Your task to perform on an android device: uninstall "TextNow: Call + Text Unlimited" Image 0: 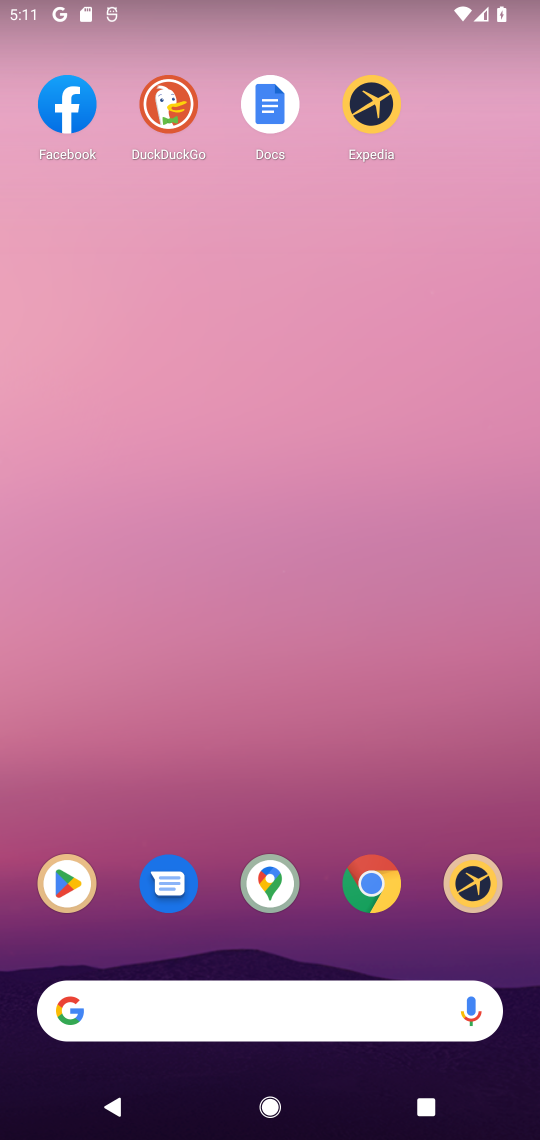
Step 0: drag from (257, 951) to (510, 83)
Your task to perform on an android device: uninstall "TextNow: Call + Text Unlimited" Image 1: 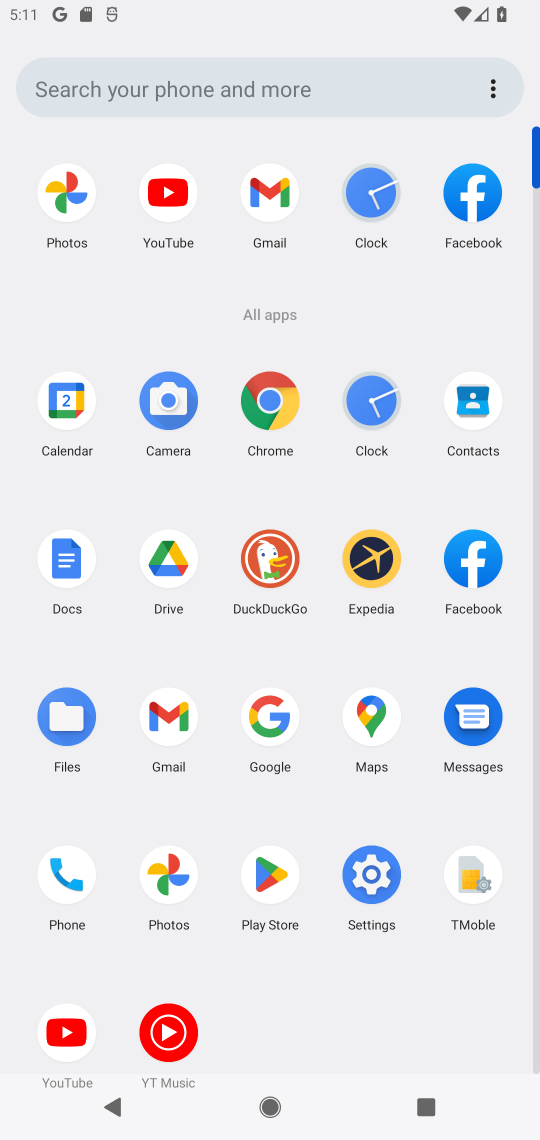
Step 1: click (286, 878)
Your task to perform on an android device: uninstall "TextNow: Call + Text Unlimited" Image 2: 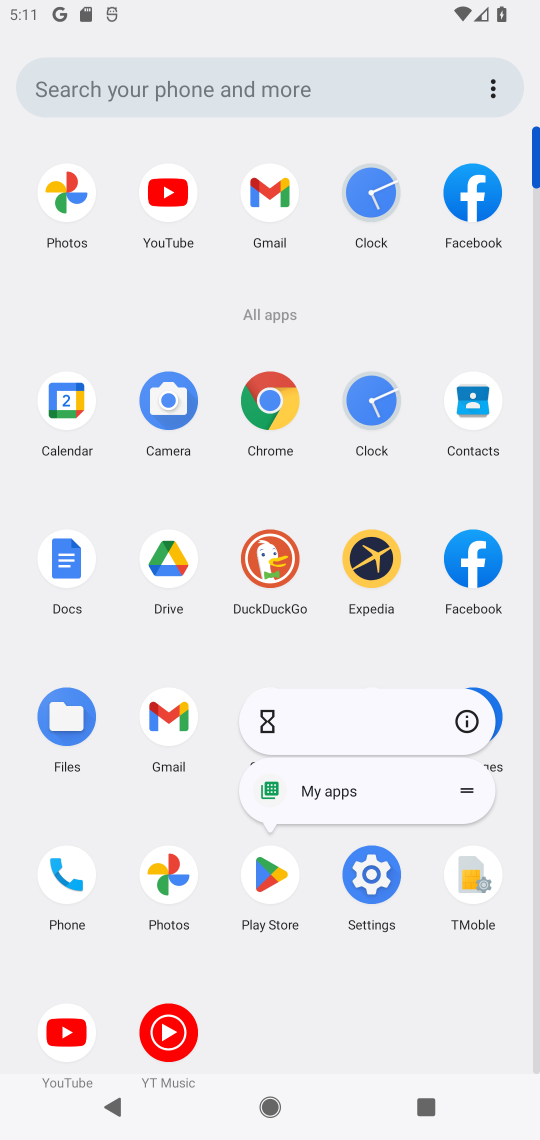
Step 2: click (263, 878)
Your task to perform on an android device: uninstall "TextNow: Call + Text Unlimited" Image 3: 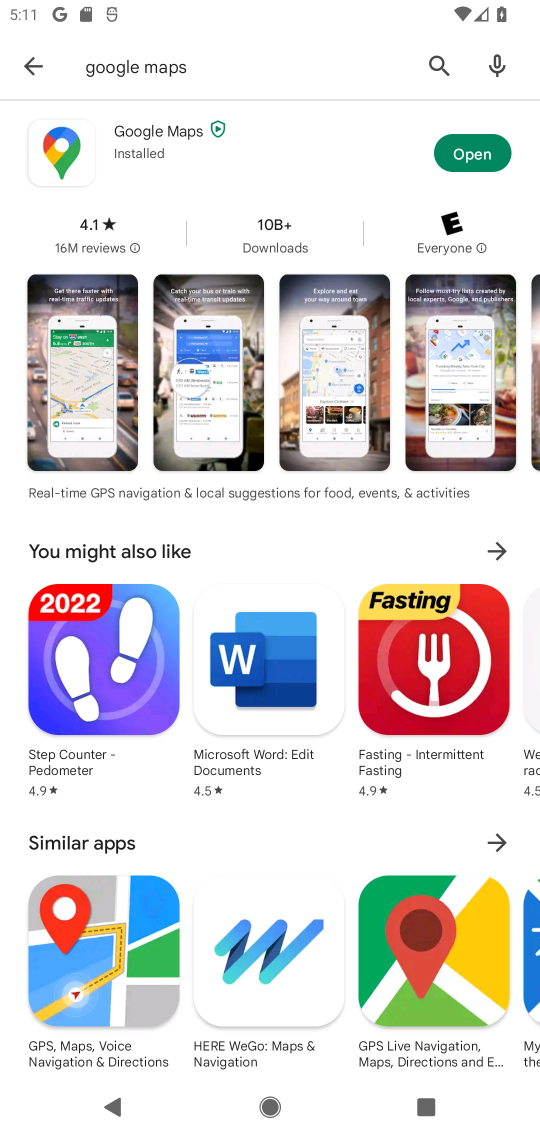
Step 3: click (4, 48)
Your task to perform on an android device: uninstall "TextNow: Call + Text Unlimited" Image 4: 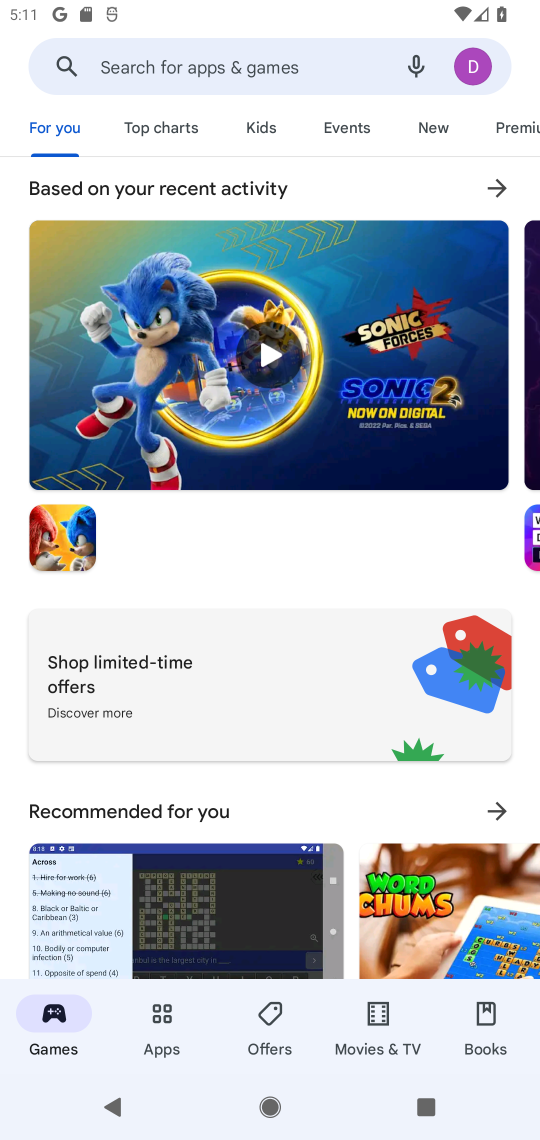
Step 4: click (210, 29)
Your task to perform on an android device: uninstall "TextNow: Call + Text Unlimited" Image 5: 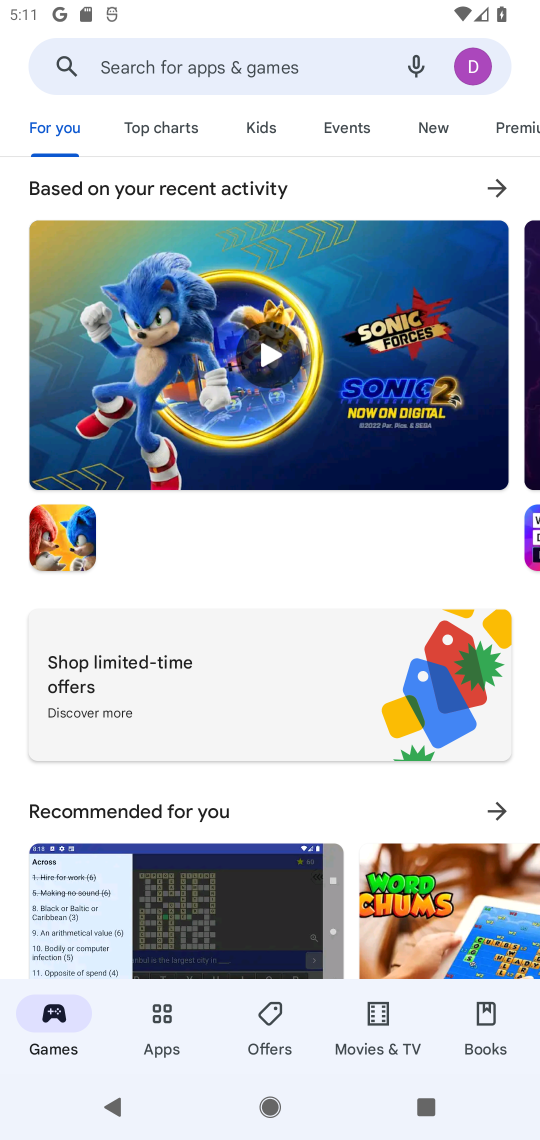
Step 5: click (128, 68)
Your task to perform on an android device: uninstall "TextNow: Call + Text Unlimited" Image 6: 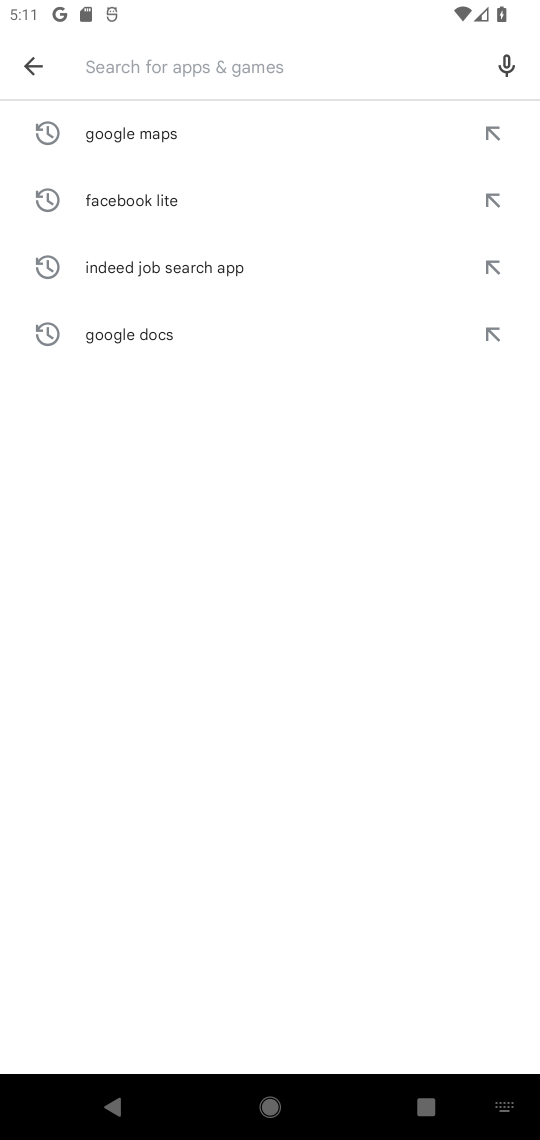
Step 6: type "TextNow: Call + Text Unlimited"
Your task to perform on an android device: uninstall "TextNow: Call + Text Unlimited" Image 7: 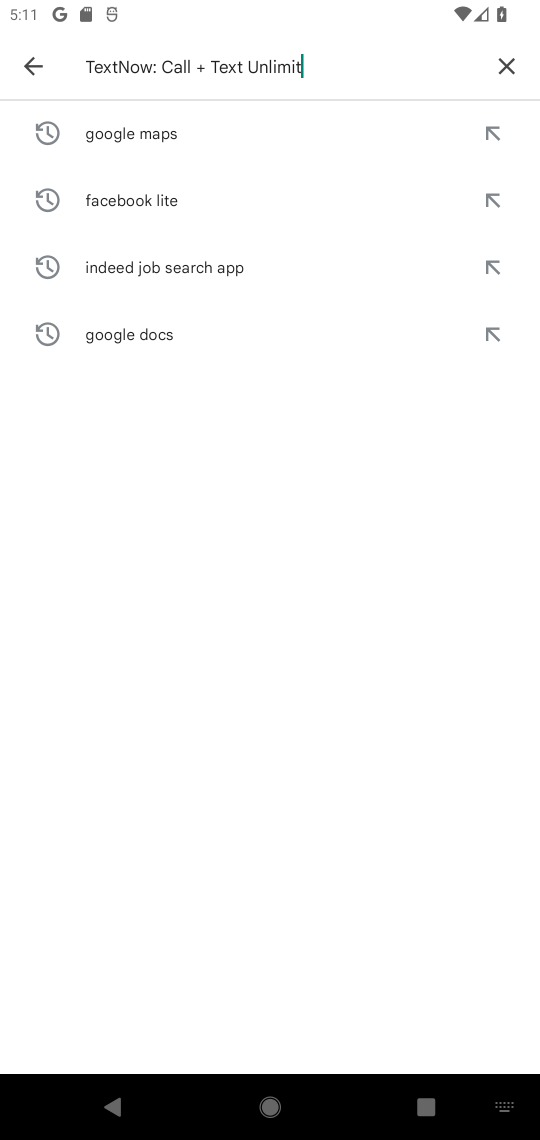
Step 7: type ""
Your task to perform on an android device: uninstall "TextNow: Call + Text Unlimited" Image 8: 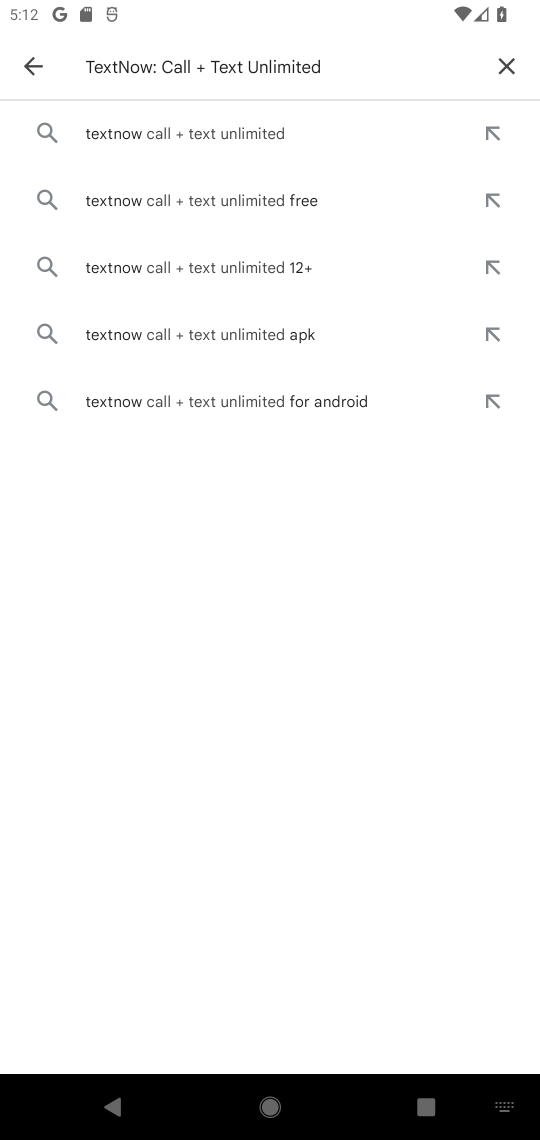
Step 8: click (152, 121)
Your task to perform on an android device: uninstall "TextNow: Call + Text Unlimited" Image 9: 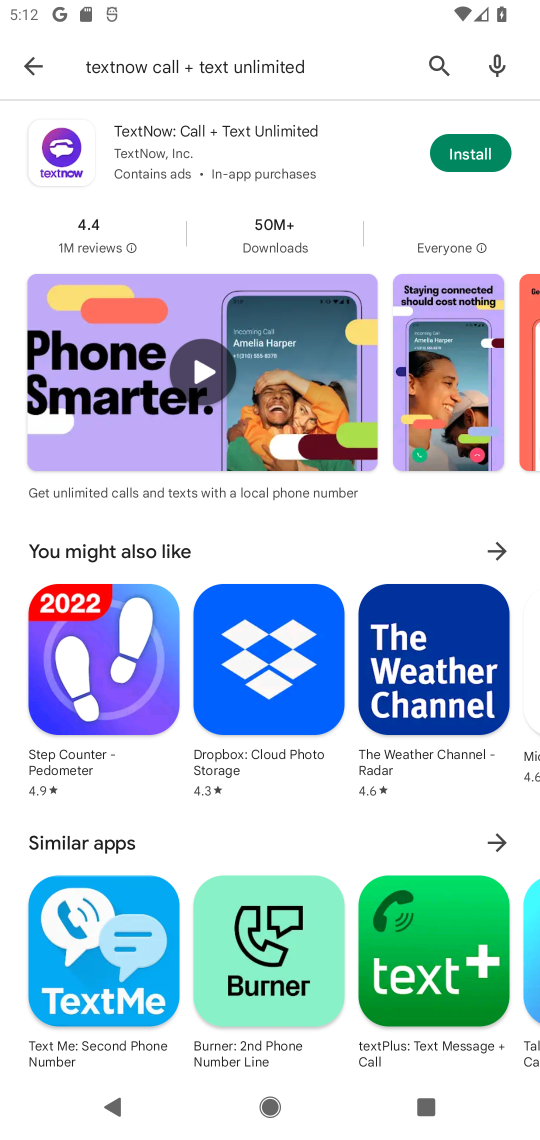
Step 9: task complete